Your task to perform on an android device: turn on showing notifications on the lock screen Image 0: 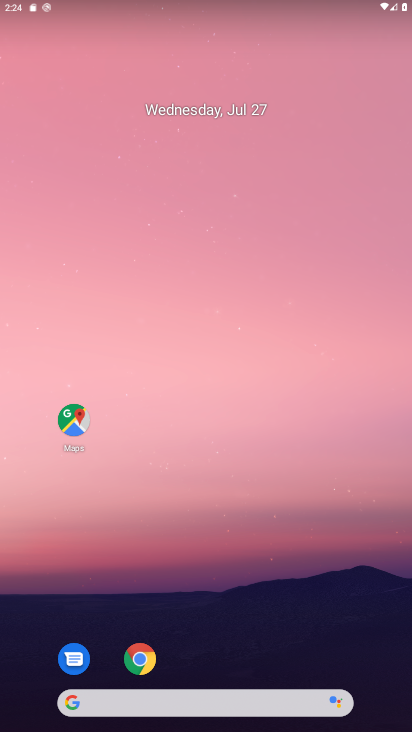
Step 0: drag from (255, 472) to (240, 30)
Your task to perform on an android device: turn on showing notifications on the lock screen Image 1: 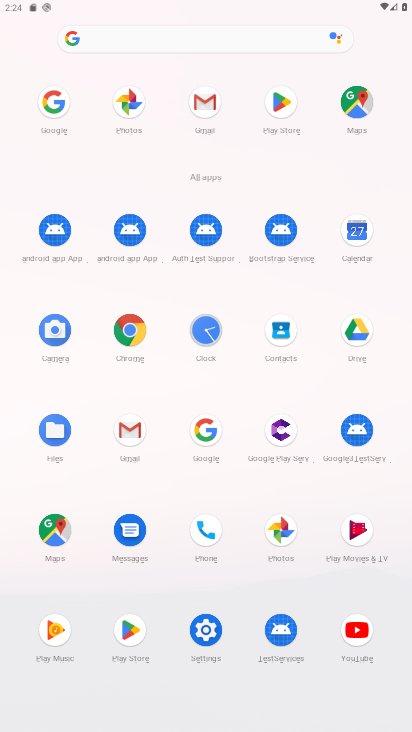
Step 1: click (207, 631)
Your task to perform on an android device: turn on showing notifications on the lock screen Image 2: 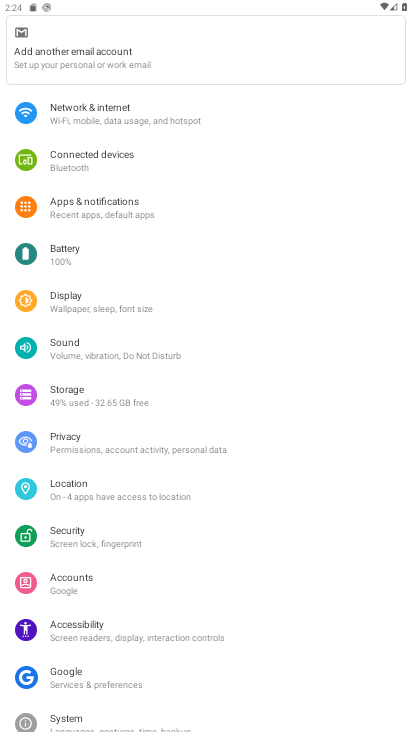
Step 2: click (104, 207)
Your task to perform on an android device: turn on showing notifications on the lock screen Image 3: 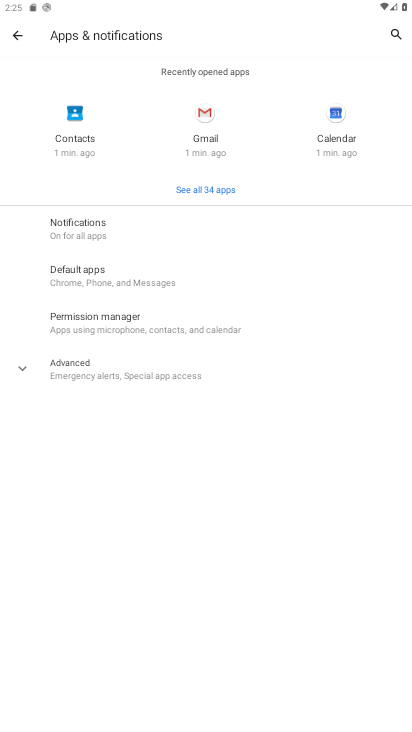
Step 3: click (56, 232)
Your task to perform on an android device: turn on showing notifications on the lock screen Image 4: 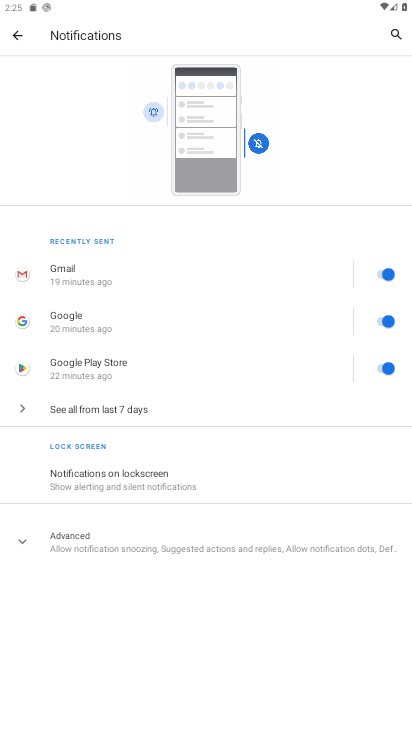
Step 4: click (128, 485)
Your task to perform on an android device: turn on showing notifications on the lock screen Image 5: 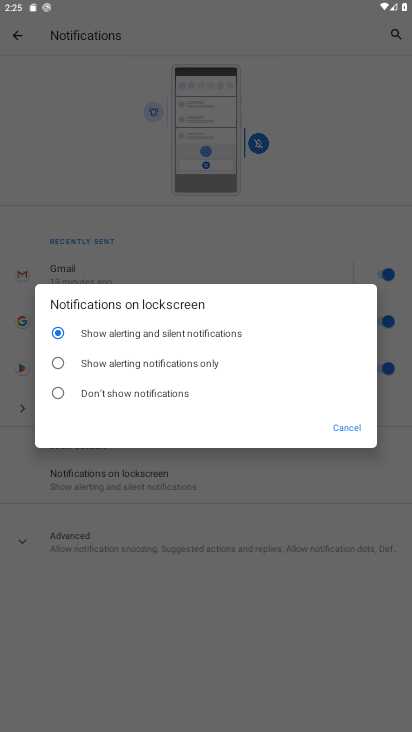
Step 5: task complete